Your task to perform on an android device: change text size in settings app Image 0: 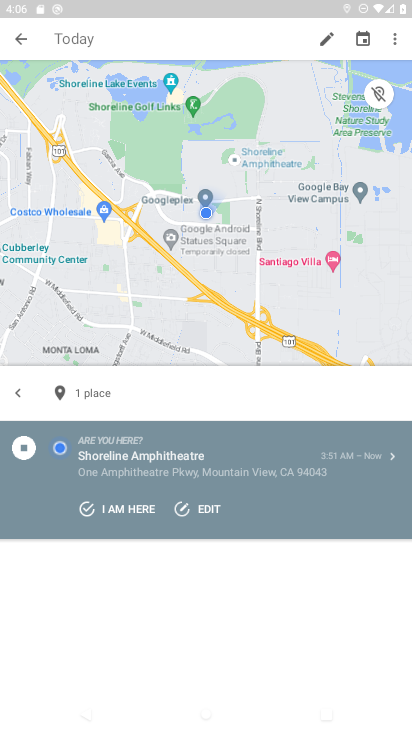
Step 0: press home button
Your task to perform on an android device: change text size in settings app Image 1: 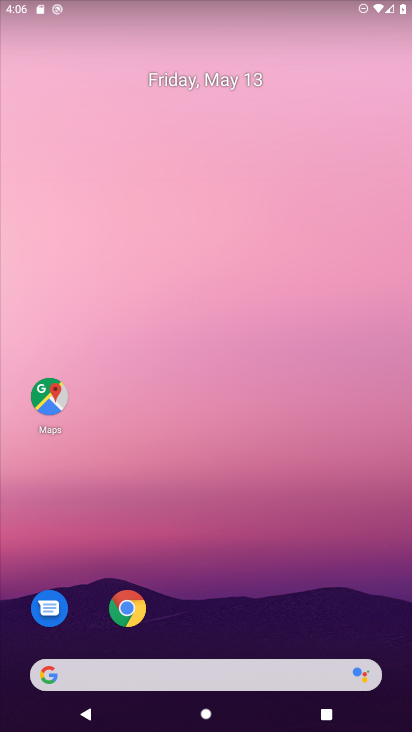
Step 1: drag from (273, 705) to (229, 132)
Your task to perform on an android device: change text size in settings app Image 2: 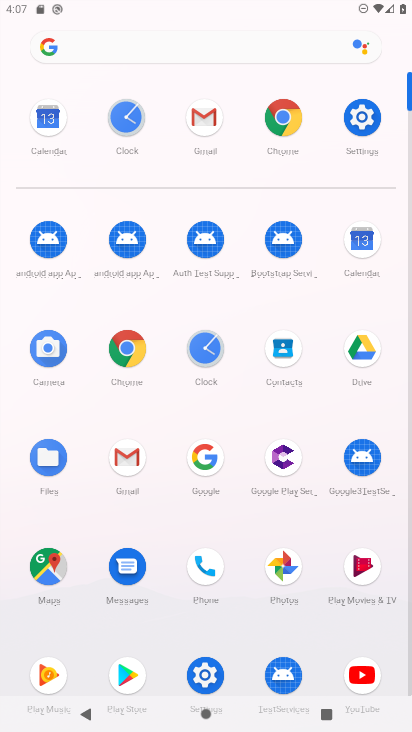
Step 2: click (370, 124)
Your task to perform on an android device: change text size in settings app Image 3: 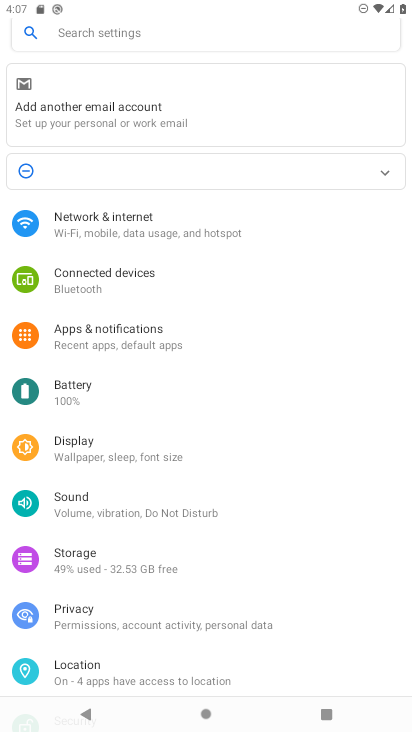
Step 3: drag from (210, 612) to (203, 121)
Your task to perform on an android device: change text size in settings app Image 4: 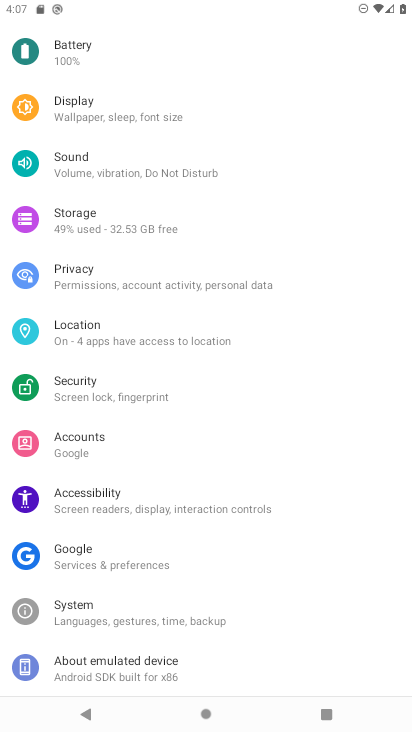
Step 4: click (114, 495)
Your task to perform on an android device: change text size in settings app Image 5: 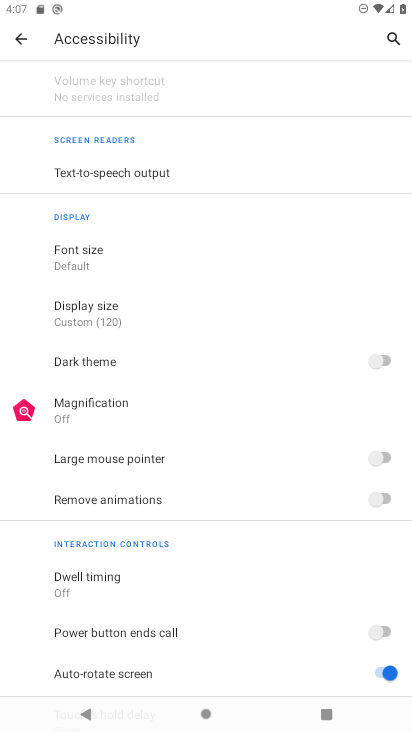
Step 5: click (145, 258)
Your task to perform on an android device: change text size in settings app Image 6: 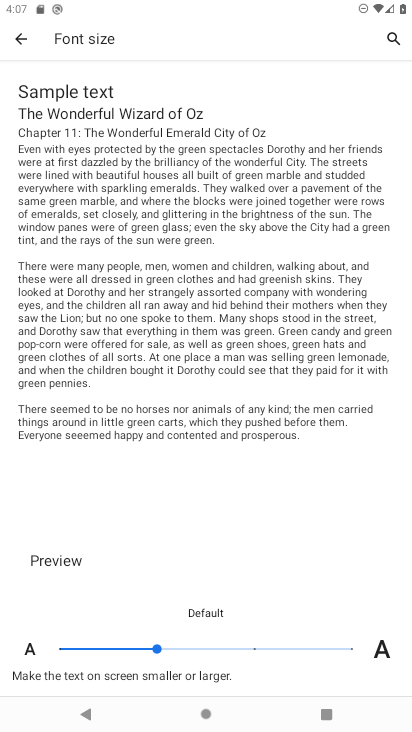
Step 6: click (253, 650)
Your task to perform on an android device: change text size in settings app Image 7: 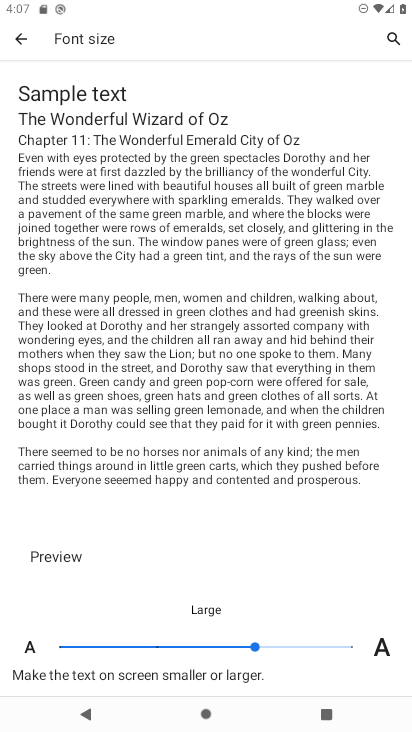
Step 7: task complete